Your task to perform on an android device: Open settings Image 0: 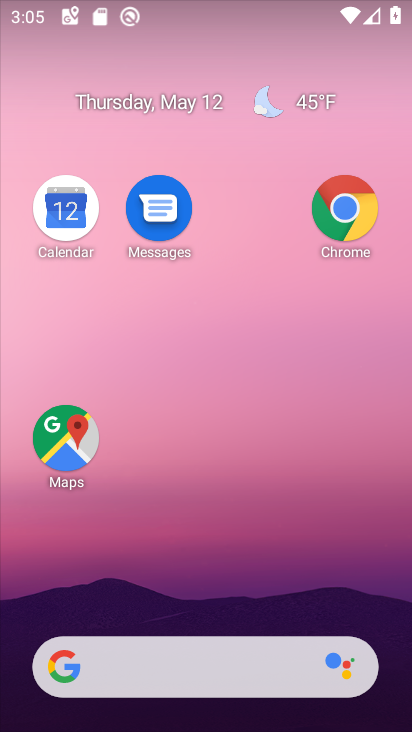
Step 0: drag from (241, 620) to (298, 0)
Your task to perform on an android device: Open settings Image 1: 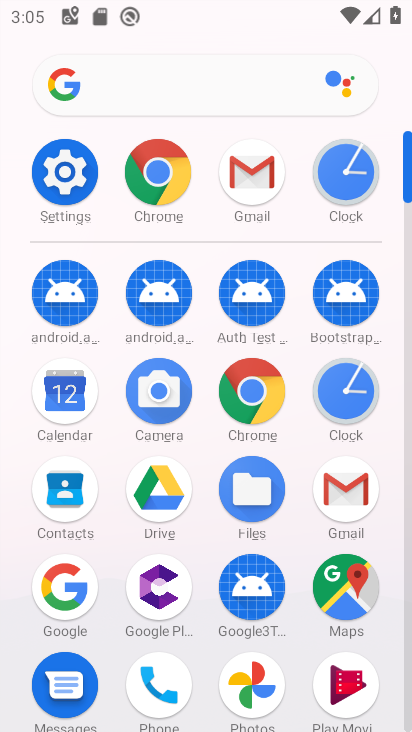
Step 1: click (57, 188)
Your task to perform on an android device: Open settings Image 2: 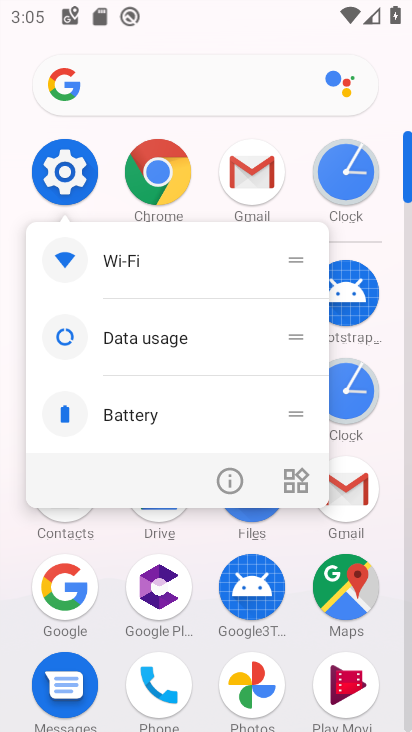
Step 2: click (236, 470)
Your task to perform on an android device: Open settings Image 3: 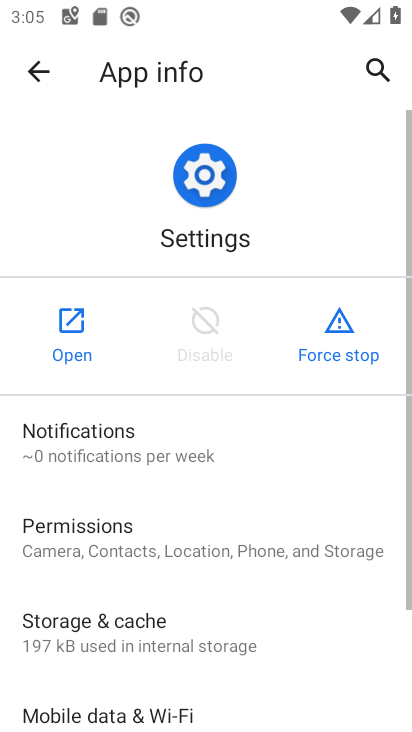
Step 3: click (67, 317)
Your task to perform on an android device: Open settings Image 4: 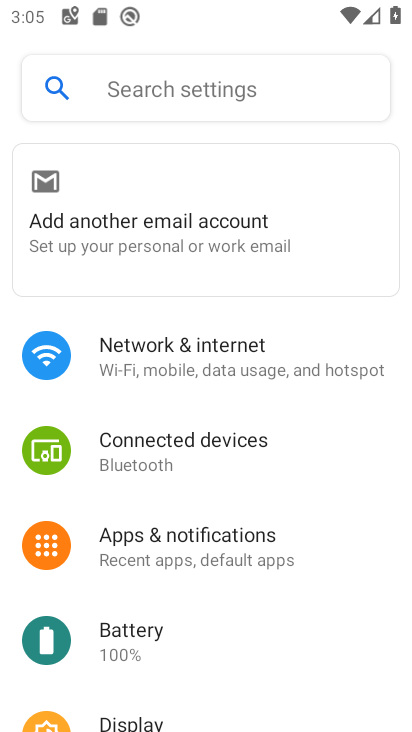
Step 4: task complete